Your task to perform on an android device: Open sound settings Image 0: 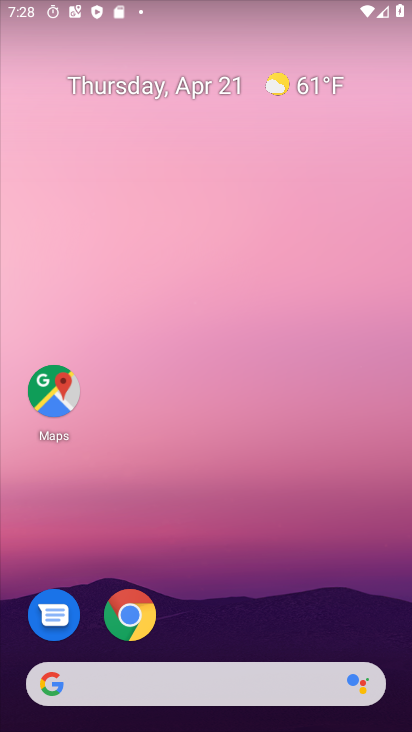
Step 0: drag from (194, 638) to (343, 9)
Your task to perform on an android device: Open sound settings Image 1: 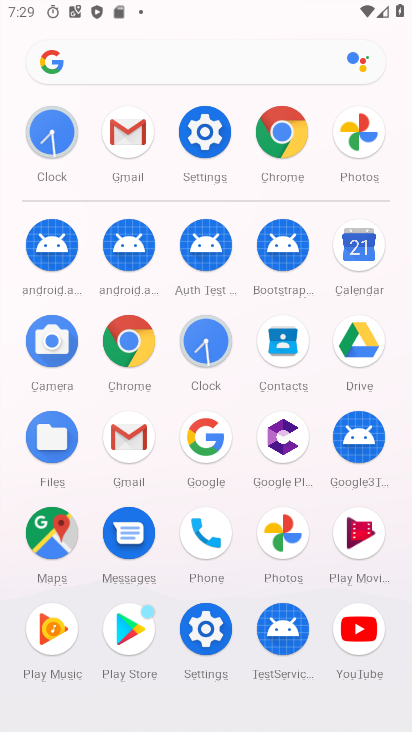
Step 1: click (211, 126)
Your task to perform on an android device: Open sound settings Image 2: 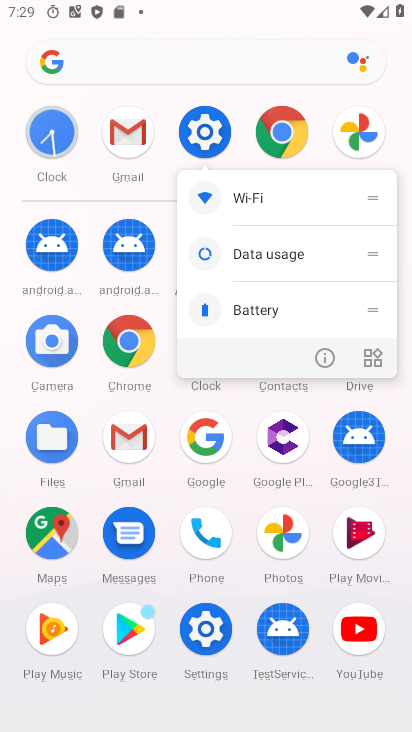
Step 2: click (326, 351)
Your task to perform on an android device: Open sound settings Image 3: 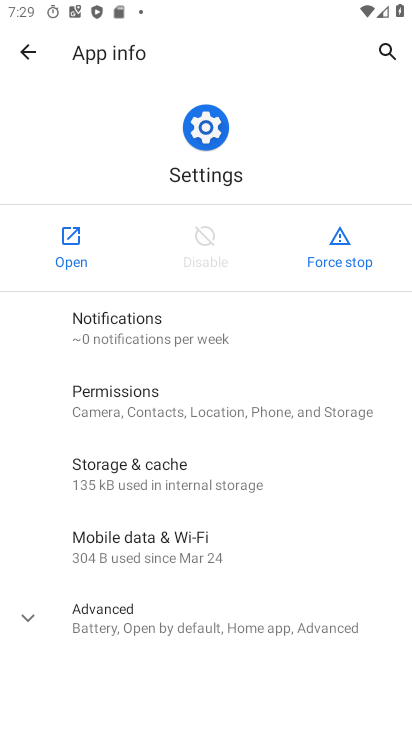
Step 3: click (71, 242)
Your task to perform on an android device: Open sound settings Image 4: 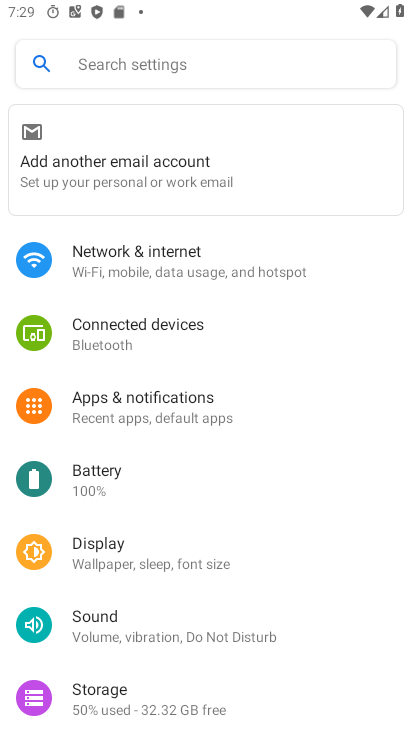
Step 4: drag from (233, 598) to (279, 289)
Your task to perform on an android device: Open sound settings Image 5: 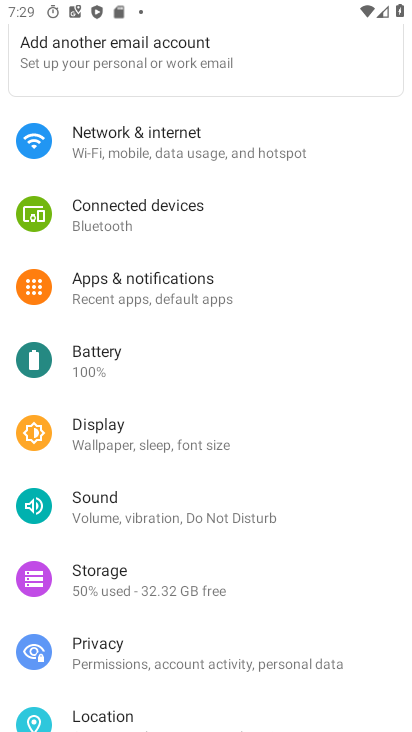
Step 5: click (154, 490)
Your task to perform on an android device: Open sound settings Image 6: 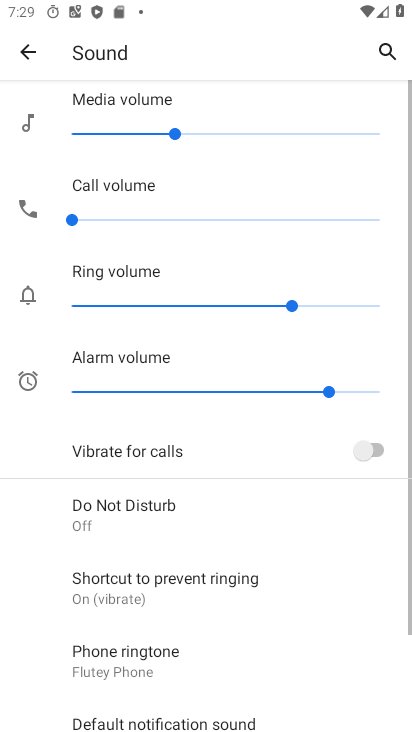
Step 6: task complete